Your task to perform on an android device: Open calendar and show me the first week of next month Image 0: 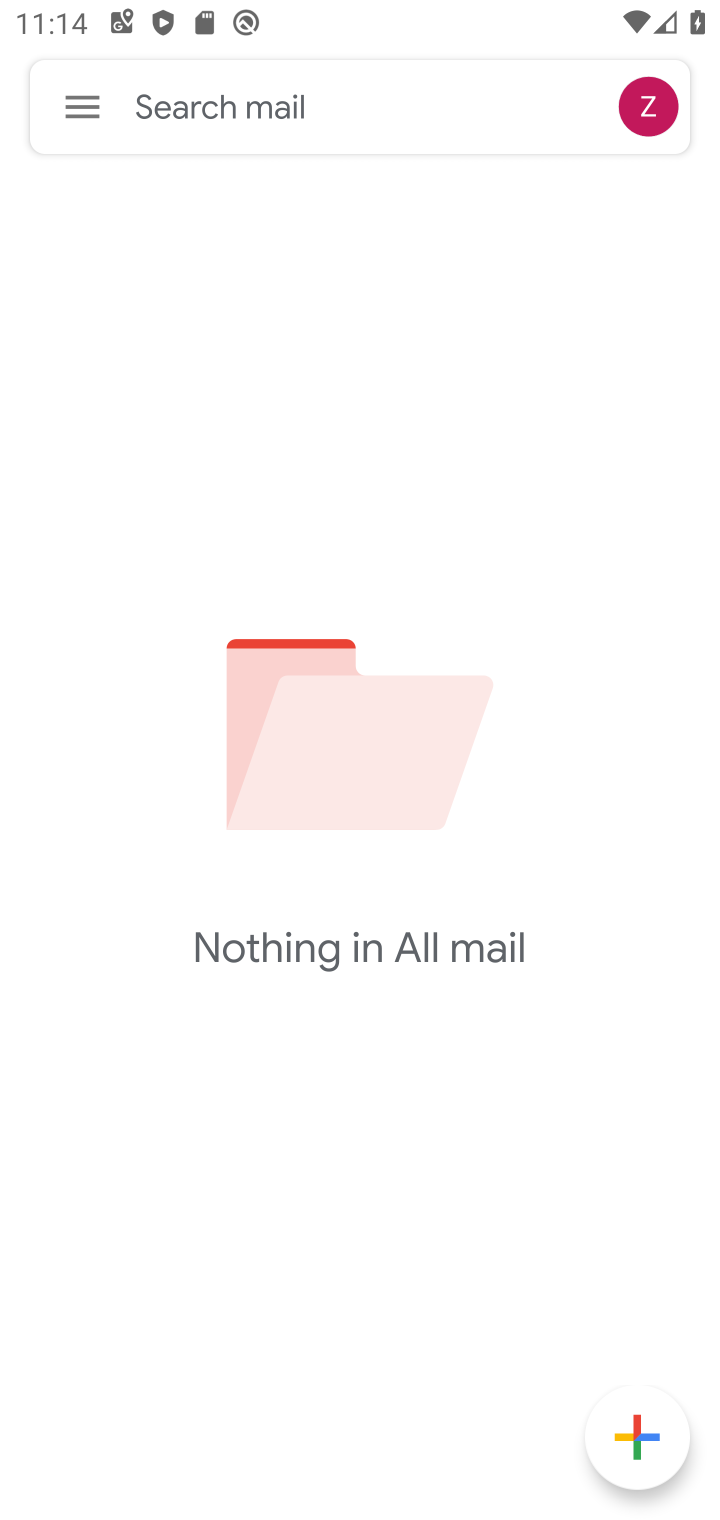
Step 0: press home button
Your task to perform on an android device: Open calendar and show me the first week of next month Image 1: 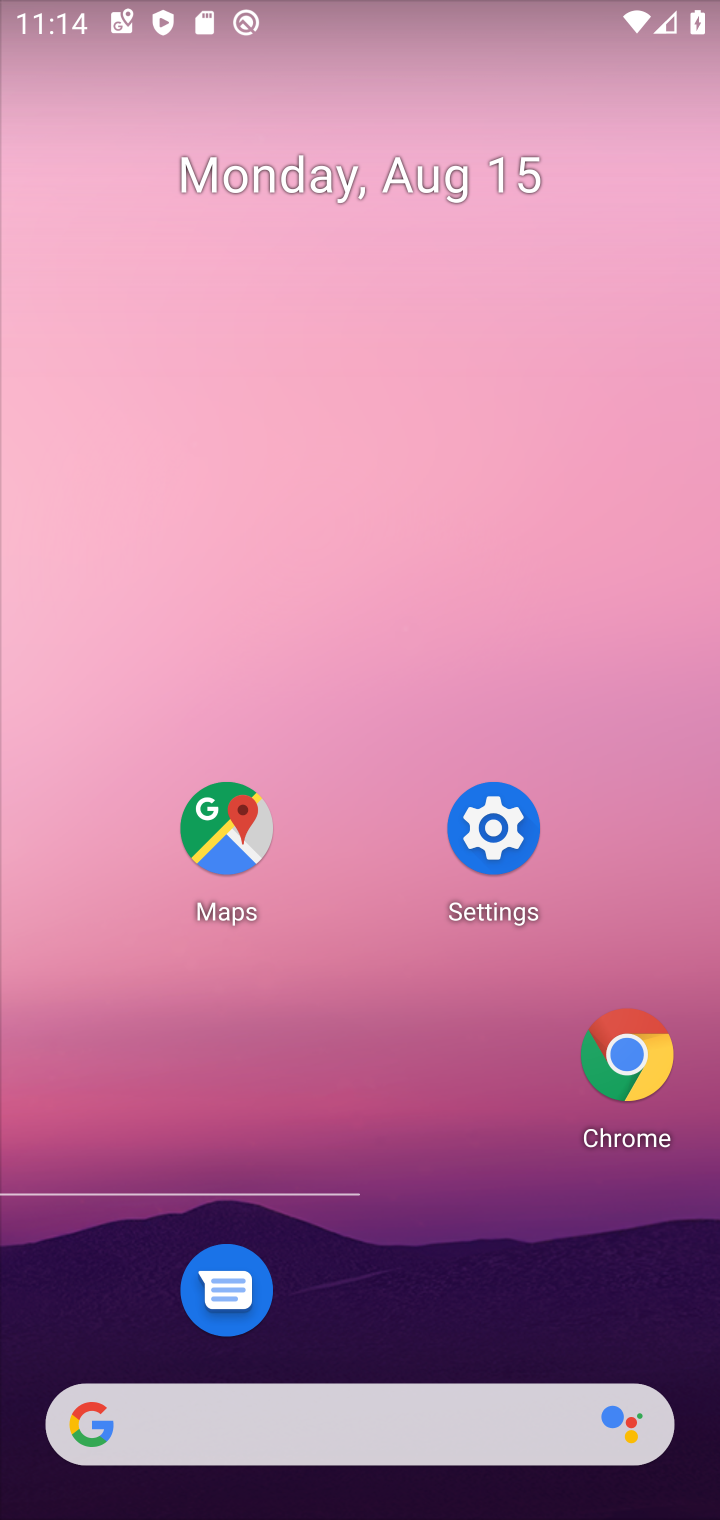
Step 1: drag from (358, 1410) to (647, 266)
Your task to perform on an android device: Open calendar and show me the first week of next month Image 2: 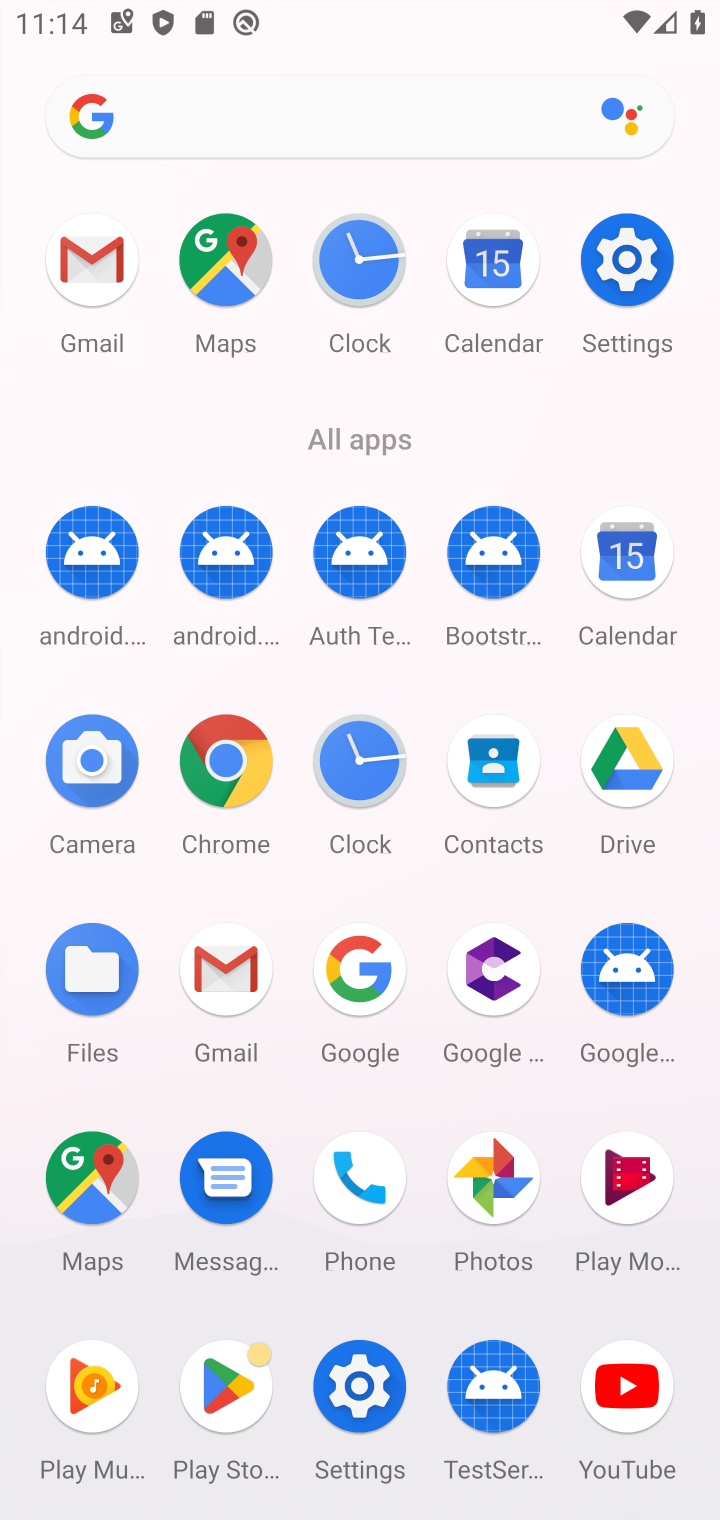
Step 2: click (628, 567)
Your task to perform on an android device: Open calendar and show me the first week of next month Image 3: 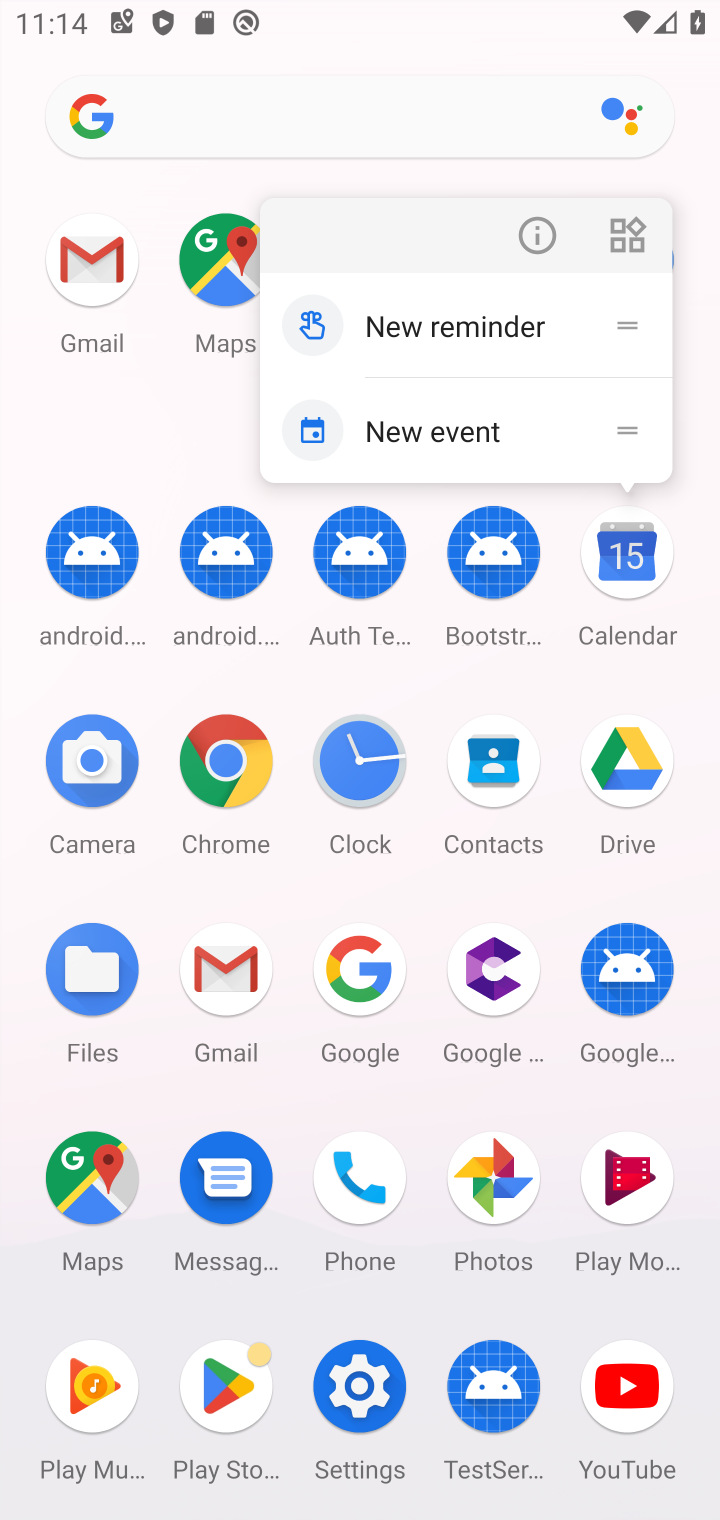
Step 3: click (628, 567)
Your task to perform on an android device: Open calendar and show me the first week of next month Image 4: 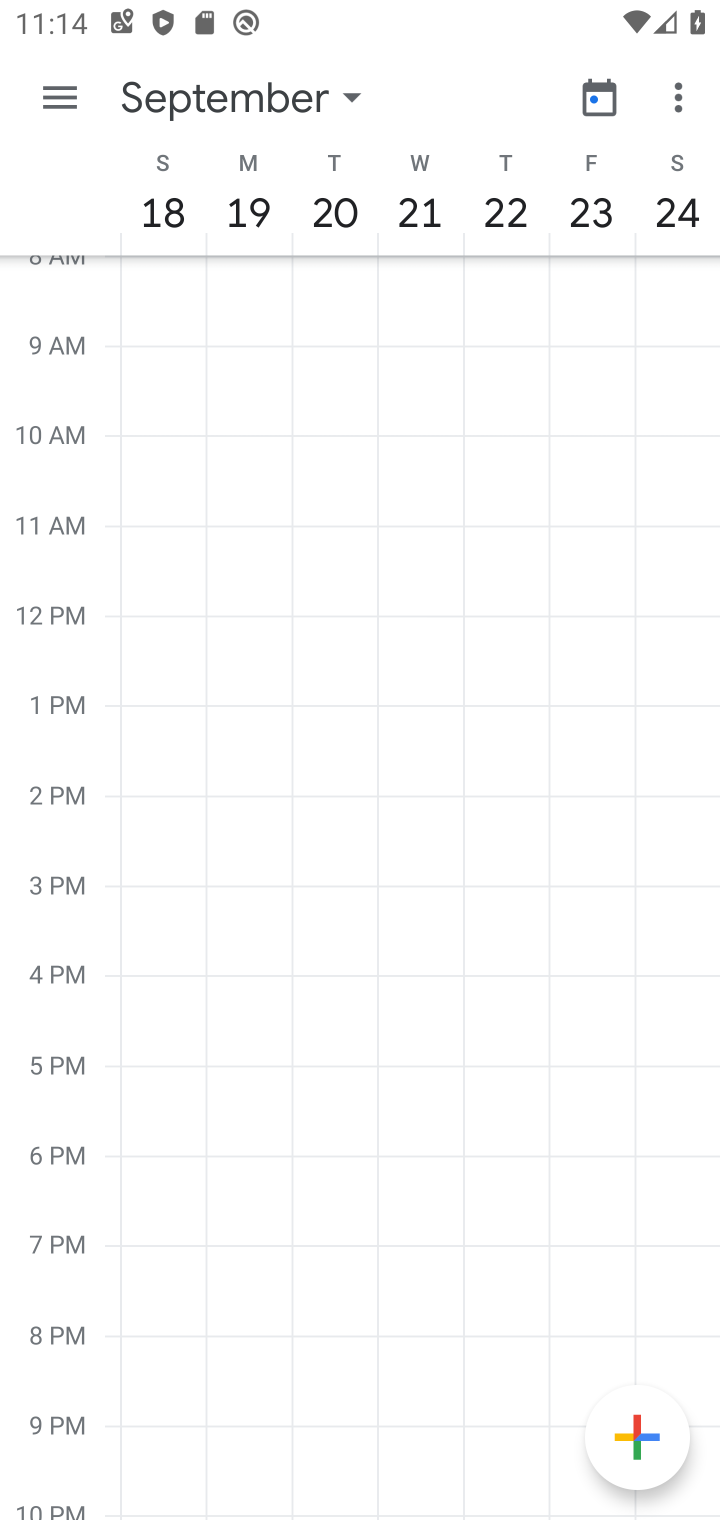
Step 4: click (263, 100)
Your task to perform on an android device: Open calendar and show me the first week of next month Image 5: 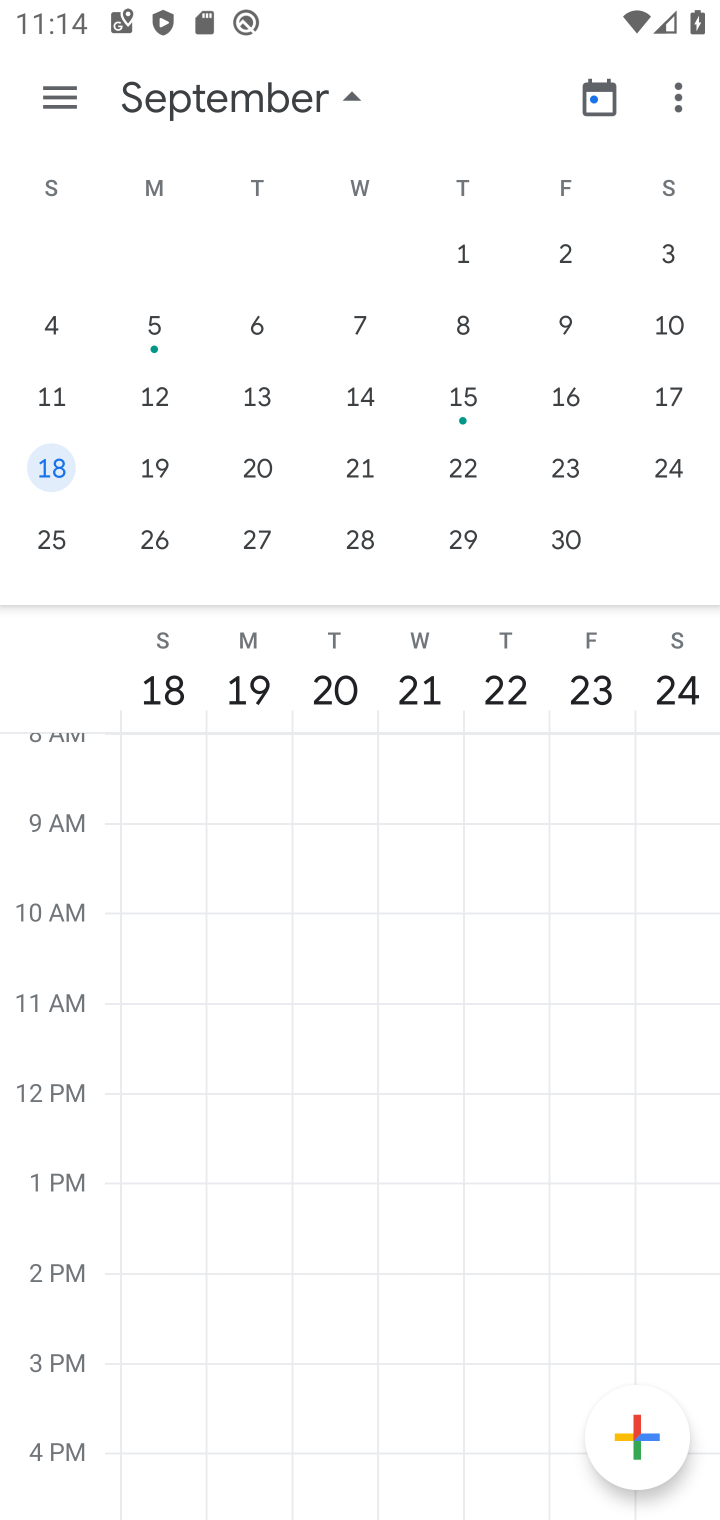
Step 5: click (458, 263)
Your task to perform on an android device: Open calendar and show me the first week of next month Image 6: 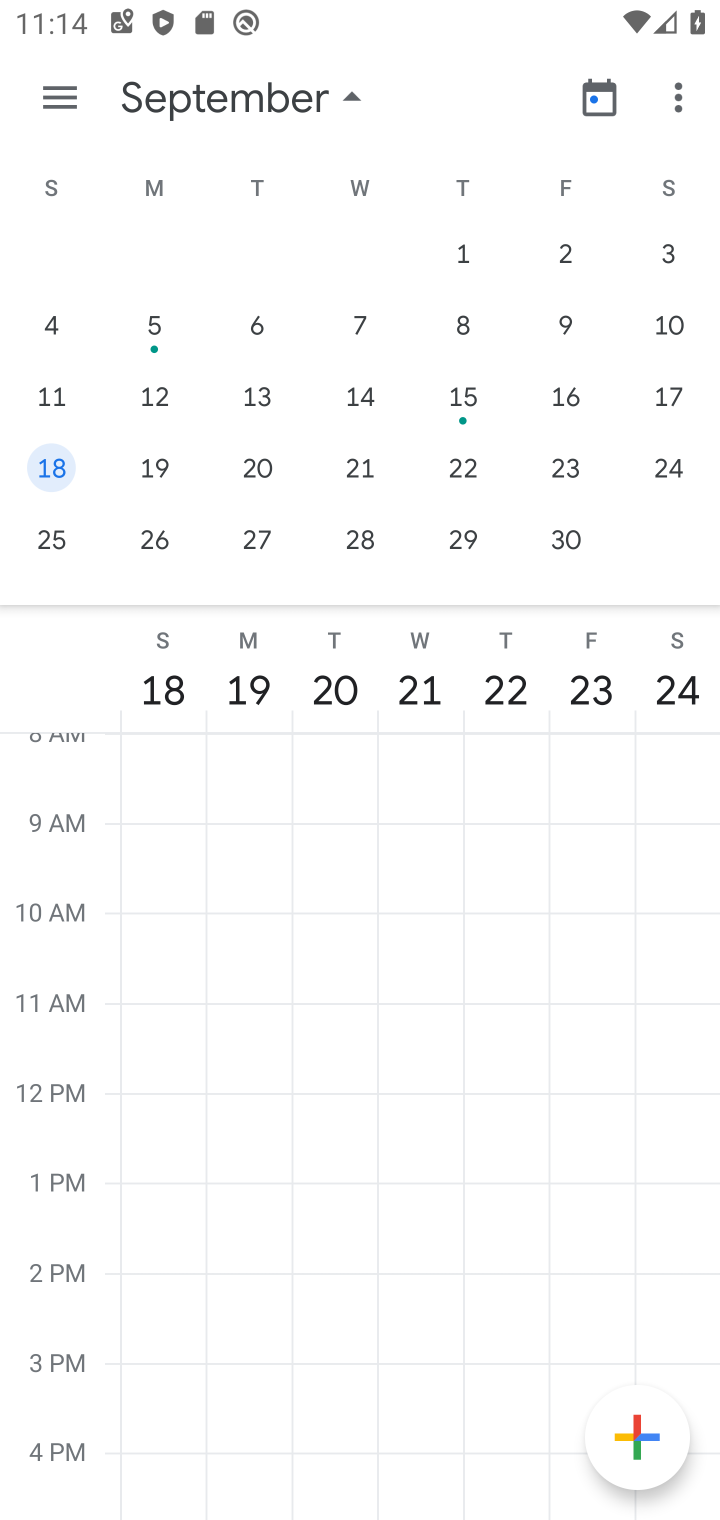
Step 6: click (484, 244)
Your task to perform on an android device: Open calendar and show me the first week of next month Image 7: 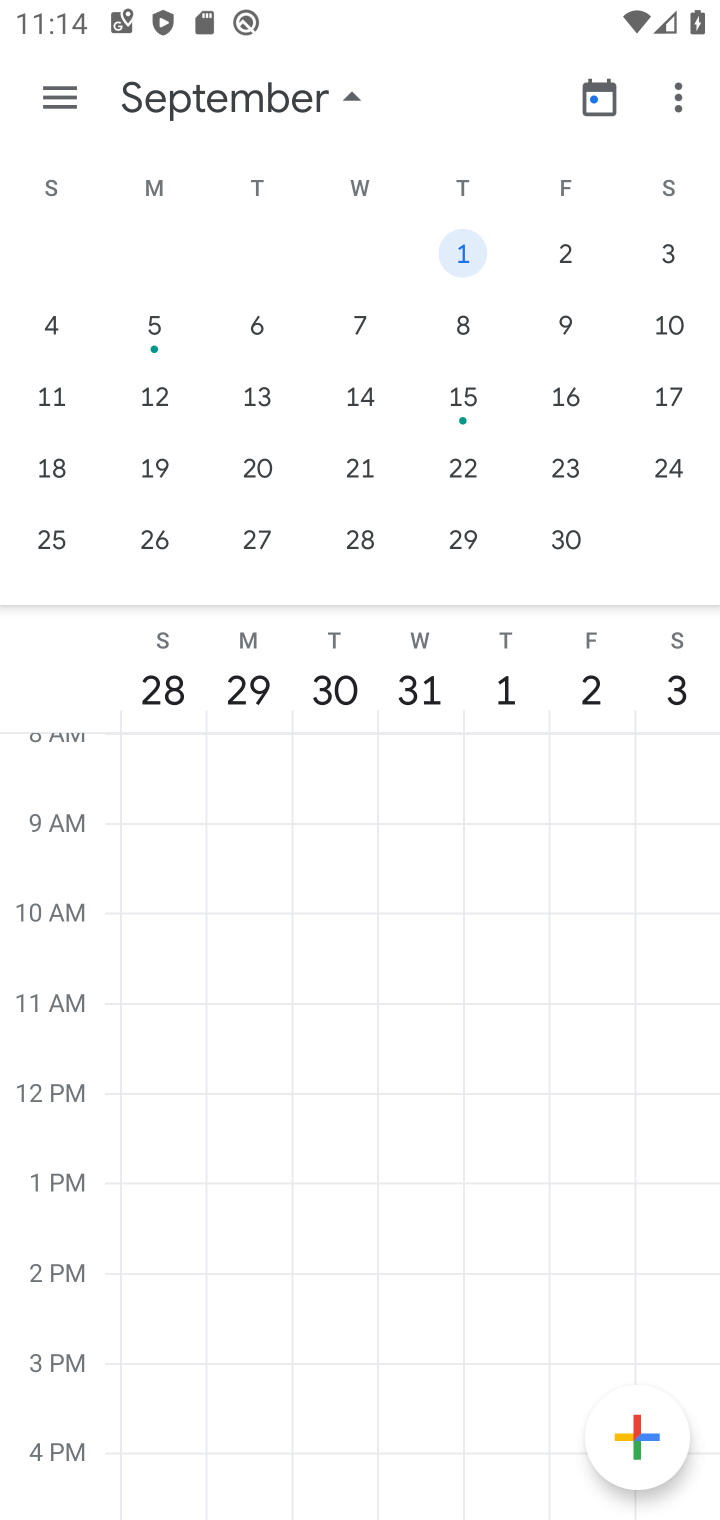
Step 7: click (69, 94)
Your task to perform on an android device: Open calendar and show me the first week of next month Image 8: 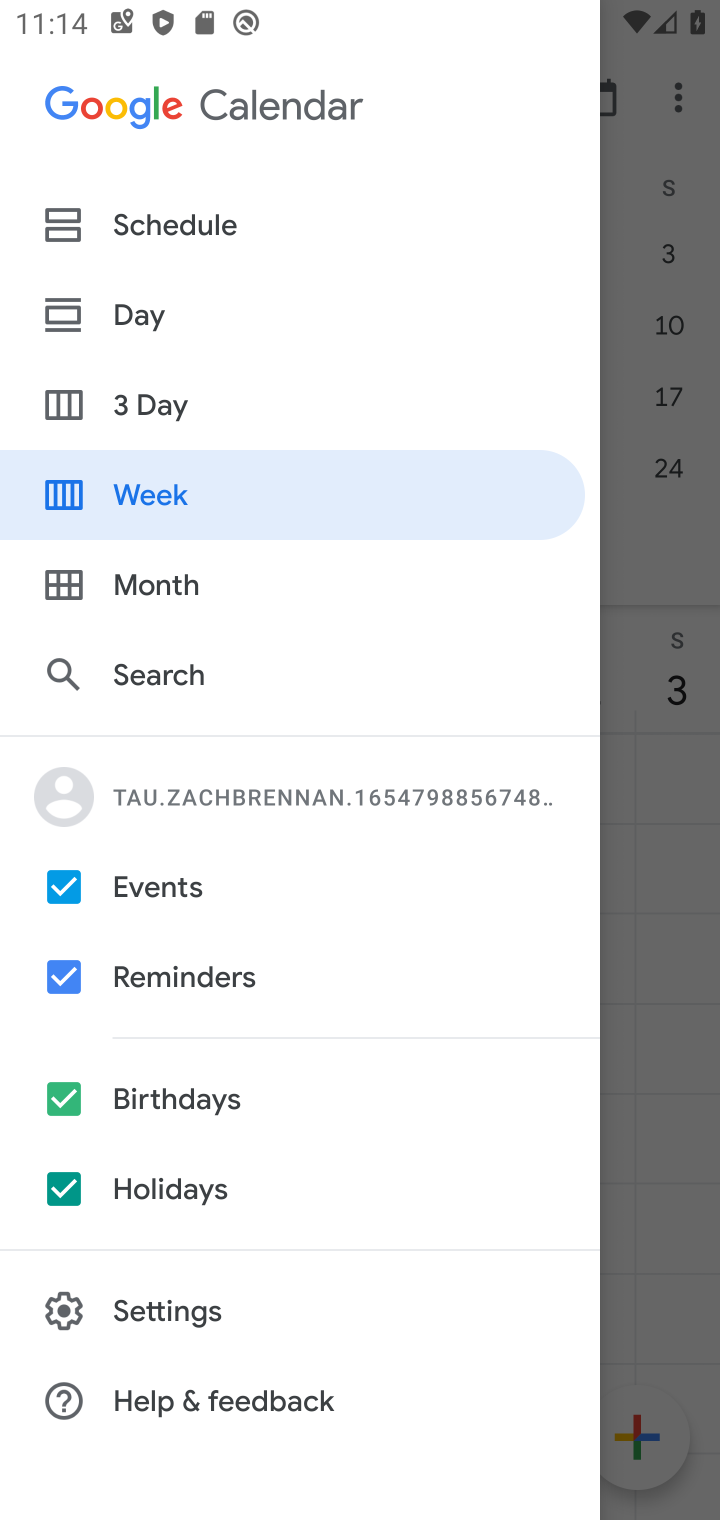
Step 8: click (186, 492)
Your task to perform on an android device: Open calendar and show me the first week of next month Image 9: 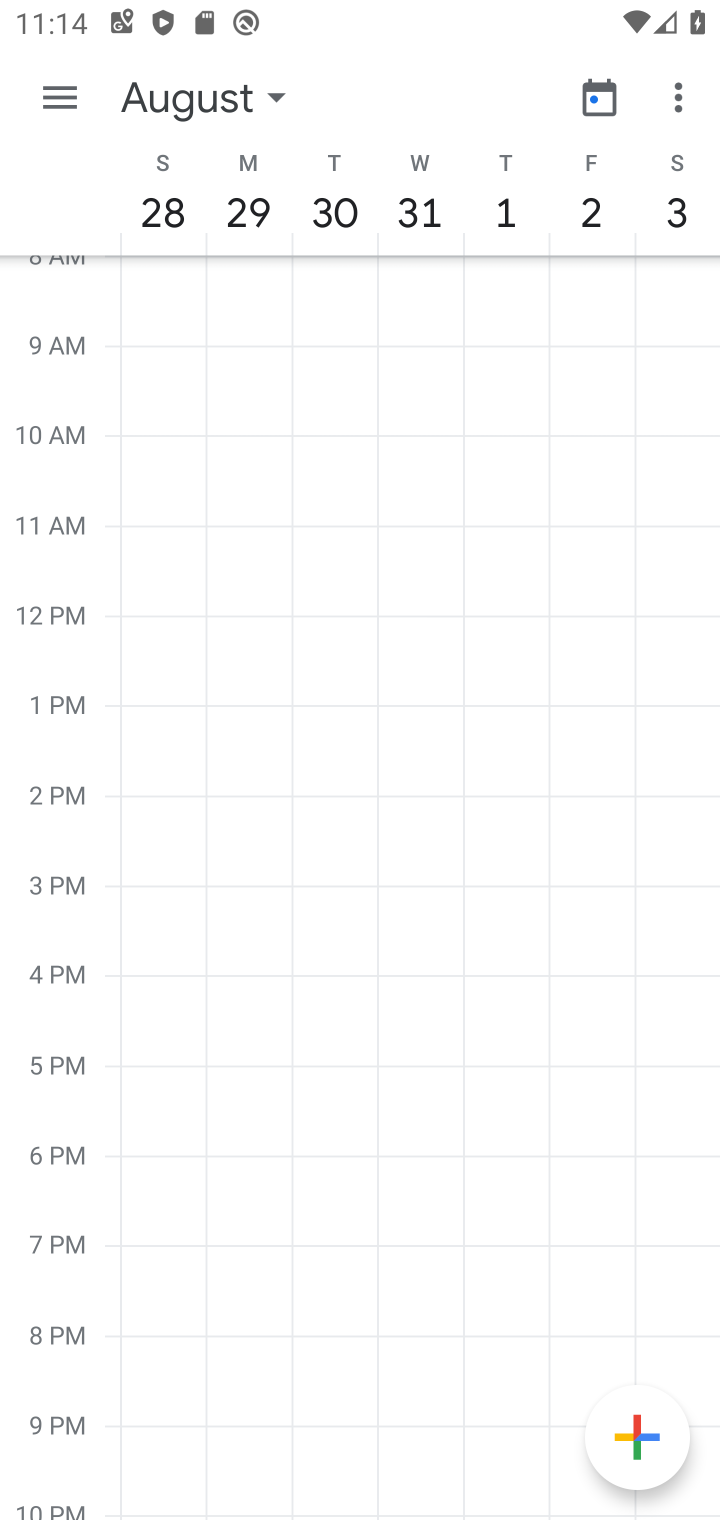
Step 9: task complete